Your task to perform on an android device: open chrome and create a bookmark for the current page Image 0: 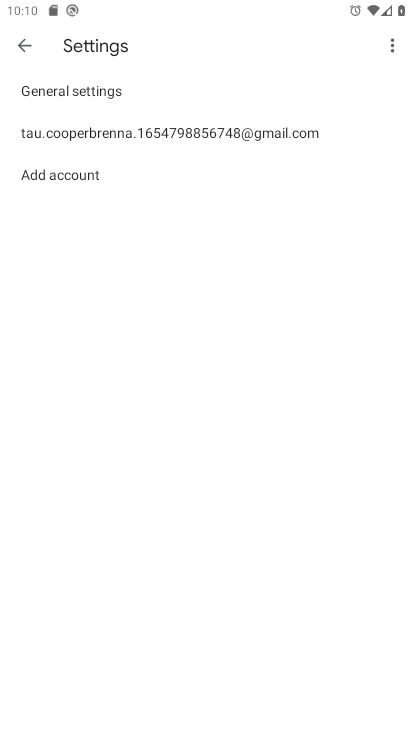
Step 0: task impossible